Your task to perform on an android device: Open my contact list Image 0: 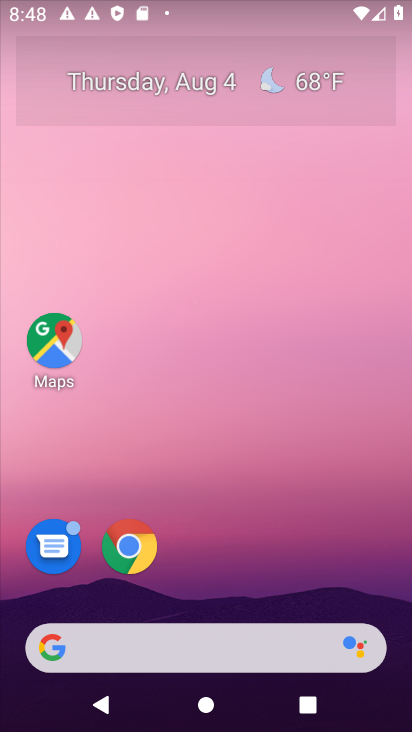
Step 0: drag from (254, 540) to (393, 317)
Your task to perform on an android device: Open my contact list Image 1: 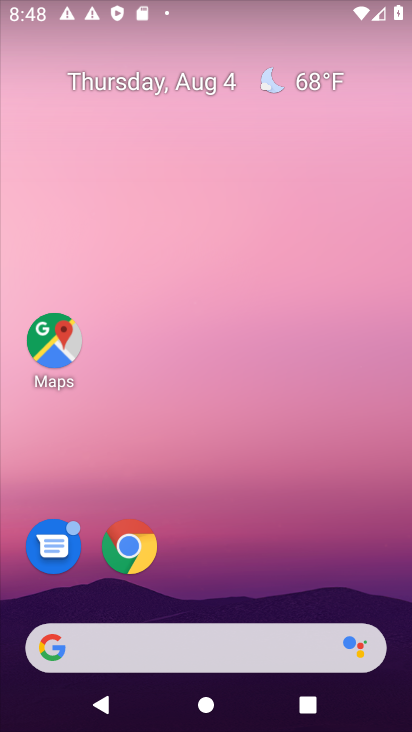
Step 1: drag from (250, 585) to (321, 42)
Your task to perform on an android device: Open my contact list Image 2: 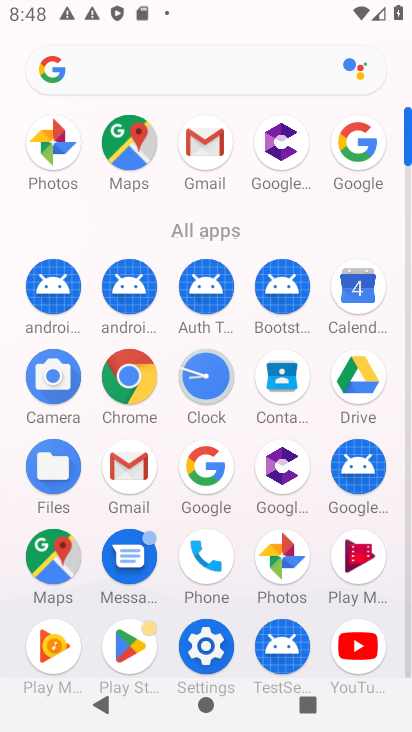
Step 2: click (277, 380)
Your task to perform on an android device: Open my contact list Image 3: 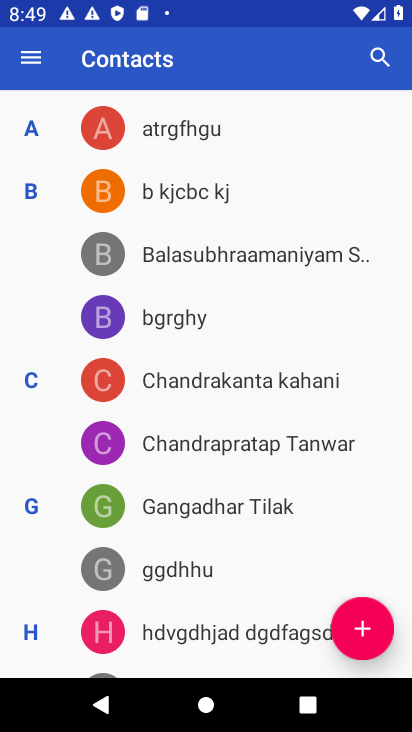
Step 3: task complete